Your task to perform on an android device: Go to internet settings Image 0: 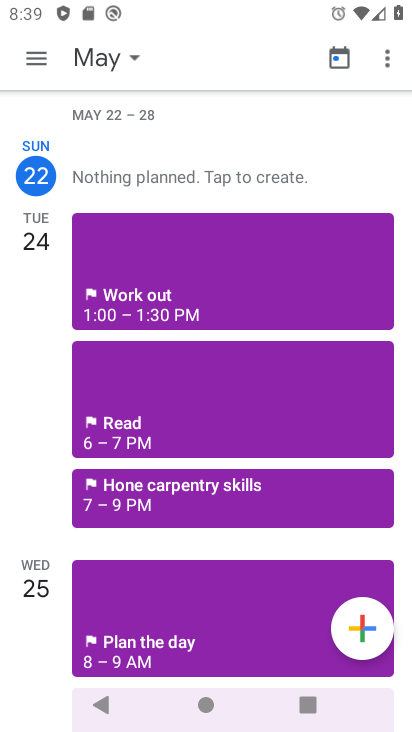
Step 0: press back button
Your task to perform on an android device: Go to internet settings Image 1: 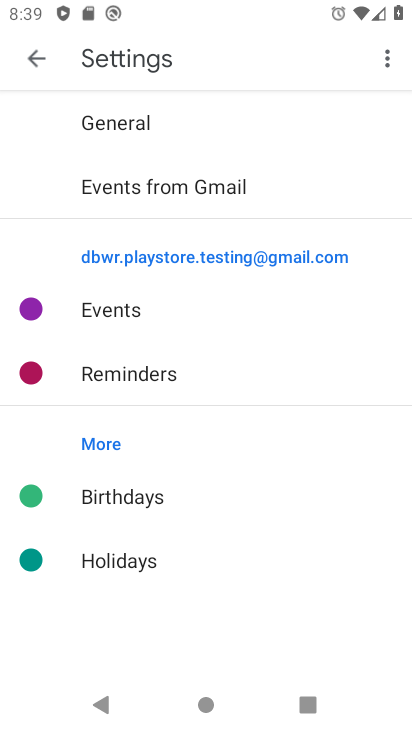
Step 1: click (30, 54)
Your task to perform on an android device: Go to internet settings Image 2: 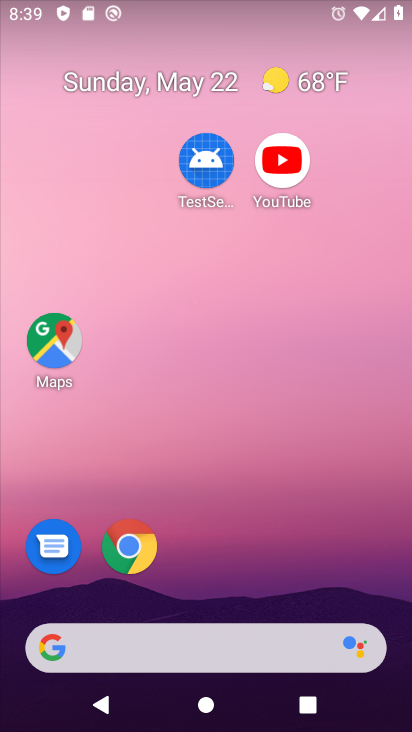
Step 2: drag from (212, 659) to (136, 46)
Your task to perform on an android device: Go to internet settings Image 3: 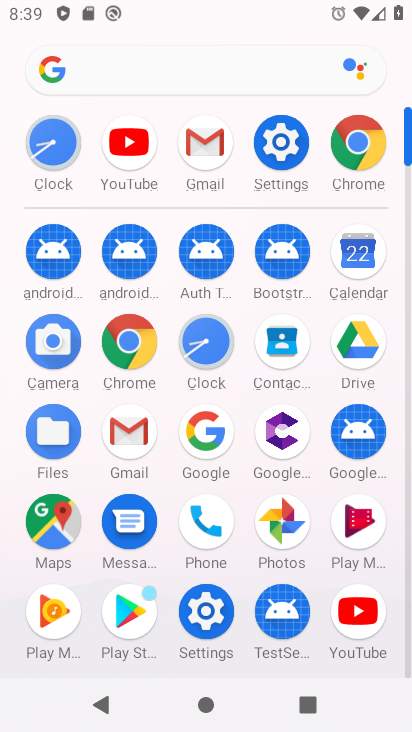
Step 3: click (277, 142)
Your task to perform on an android device: Go to internet settings Image 4: 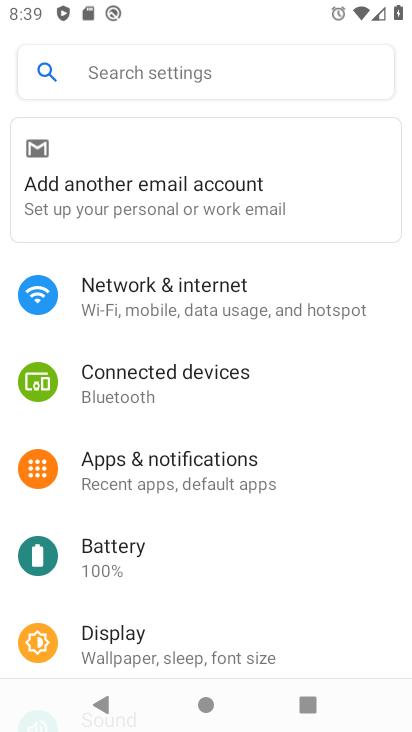
Step 4: click (154, 304)
Your task to perform on an android device: Go to internet settings Image 5: 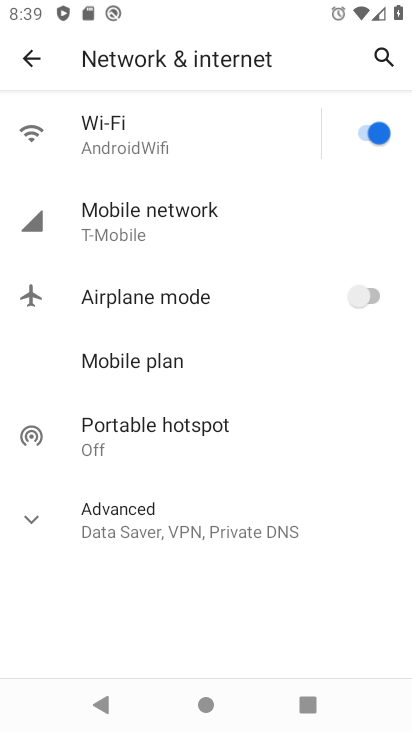
Step 5: task complete